Your task to perform on an android device: Go to settings Image 0: 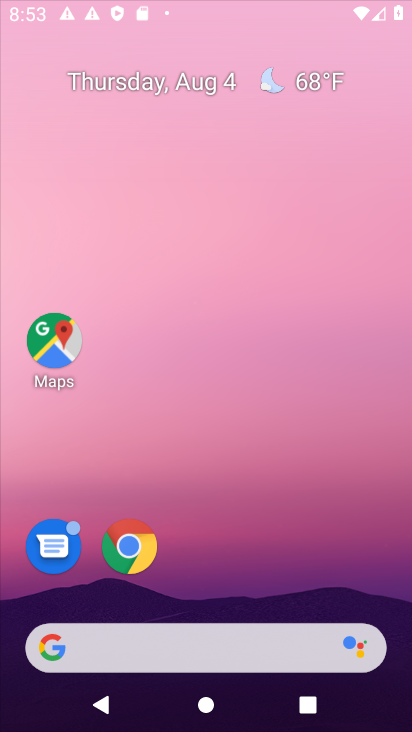
Step 0: press home button
Your task to perform on an android device: Go to settings Image 1: 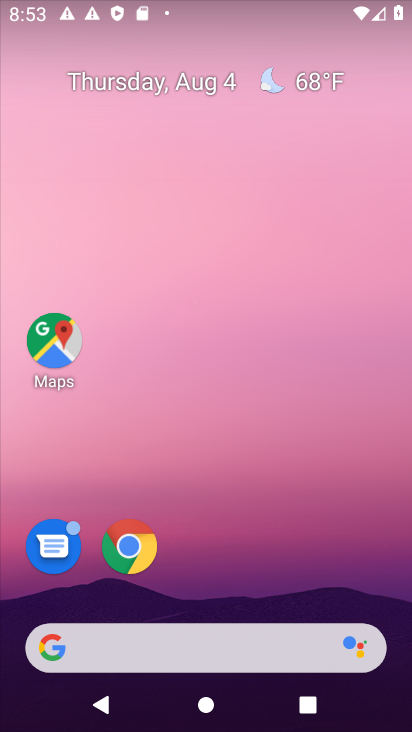
Step 1: drag from (207, 613) to (143, 58)
Your task to perform on an android device: Go to settings Image 2: 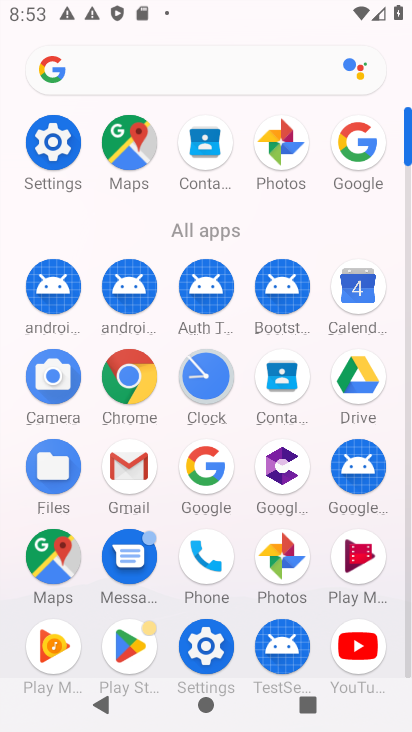
Step 2: click (50, 141)
Your task to perform on an android device: Go to settings Image 3: 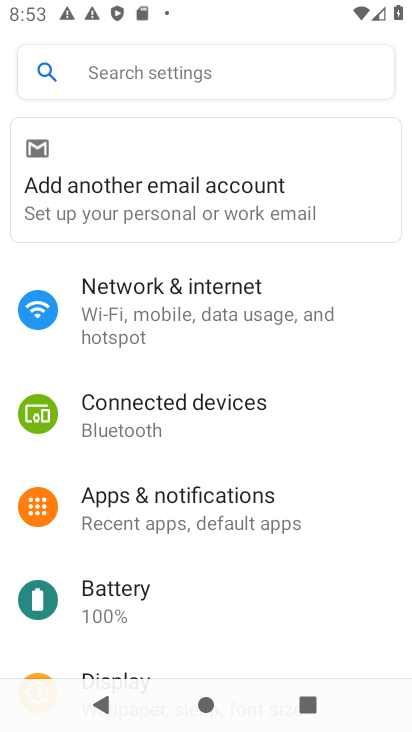
Step 3: task complete